Your task to perform on an android device: turn off airplane mode Image 0: 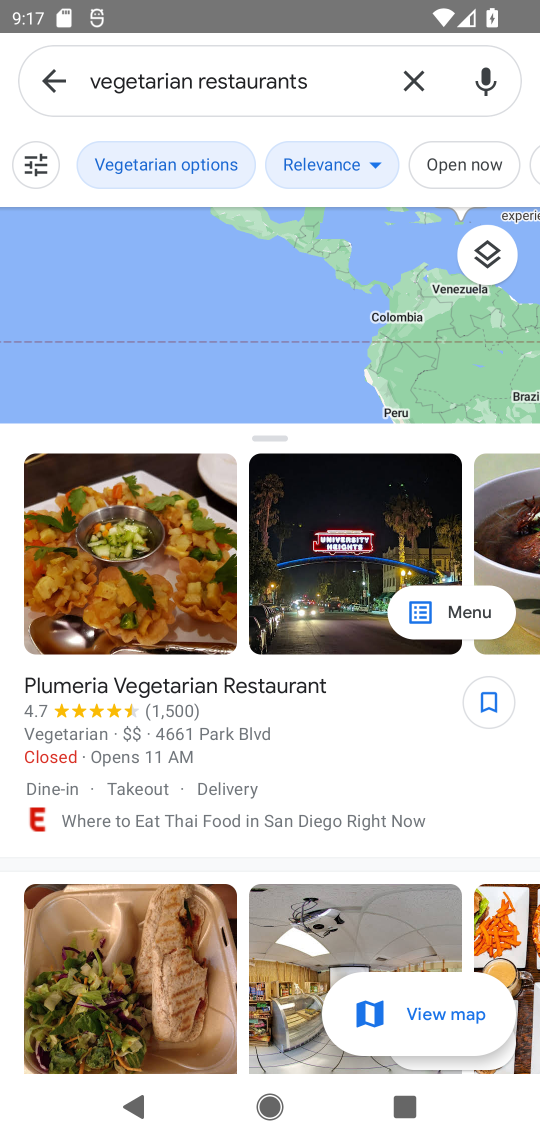
Step 0: press home button
Your task to perform on an android device: turn off airplane mode Image 1: 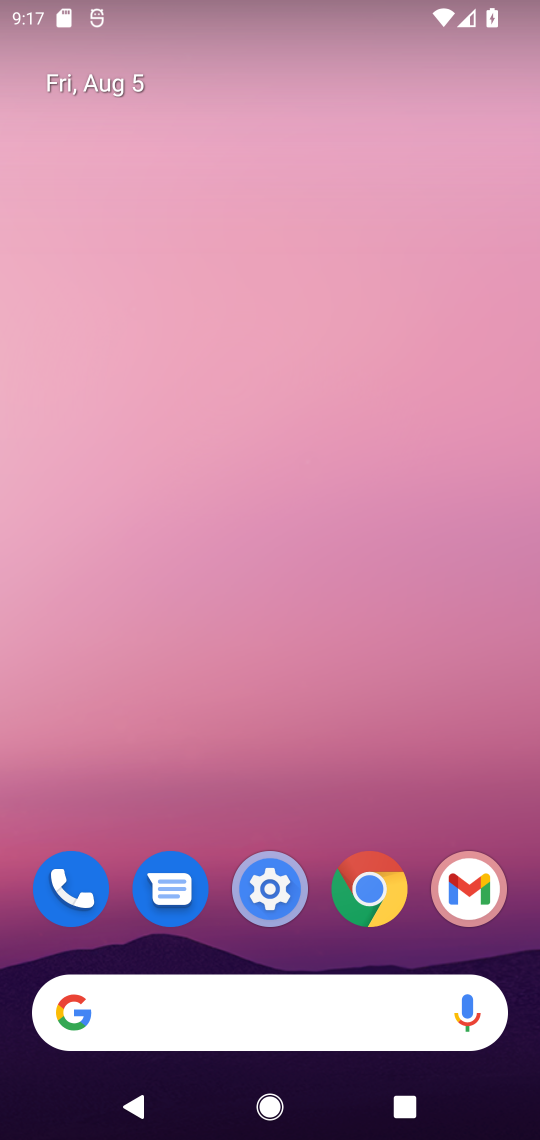
Step 1: drag from (354, 744) to (243, 241)
Your task to perform on an android device: turn off airplane mode Image 2: 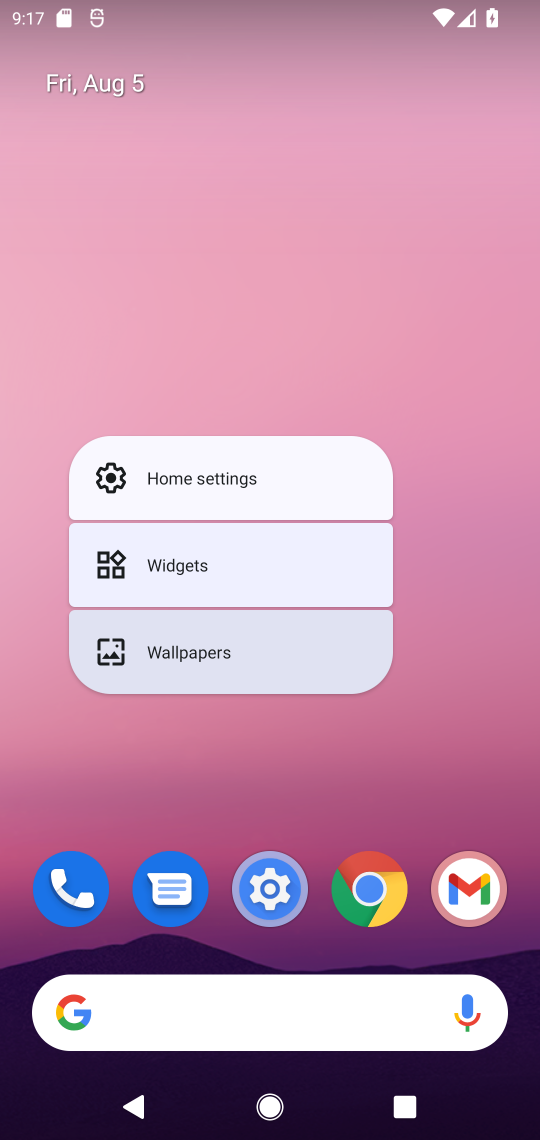
Step 2: click (319, 781)
Your task to perform on an android device: turn off airplane mode Image 3: 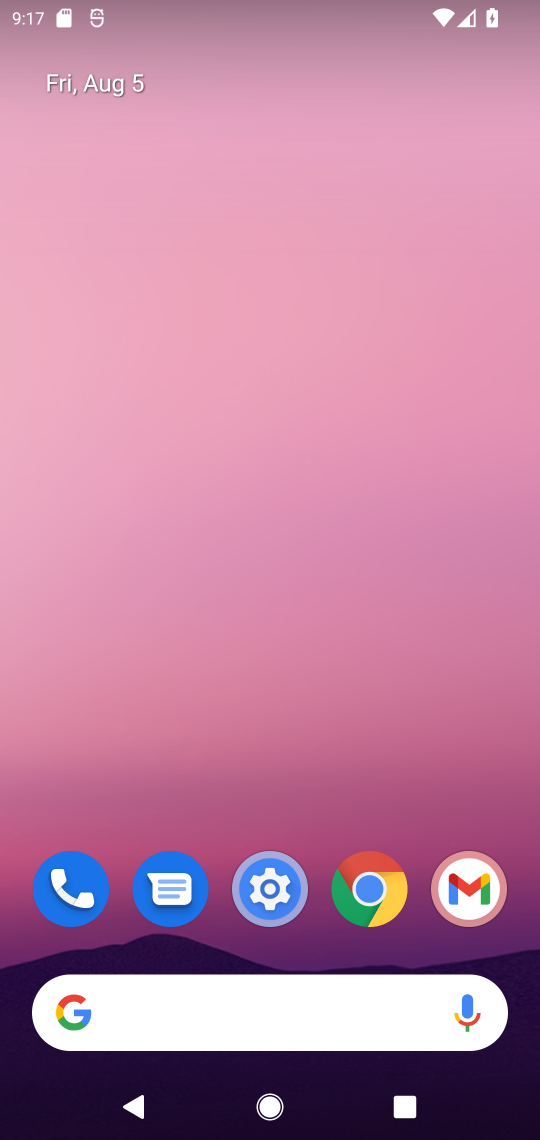
Step 3: drag from (291, 944) to (279, 375)
Your task to perform on an android device: turn off airplane mode Image 4: 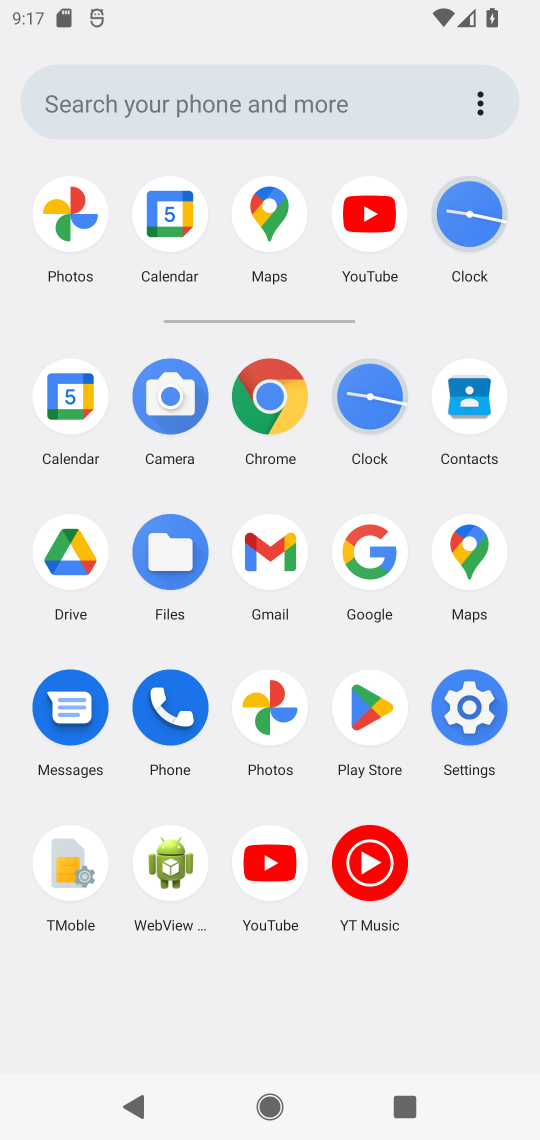
Step 4: click (478, 692)
Your task to perform on an android device: turn off airplane mode Image 5: 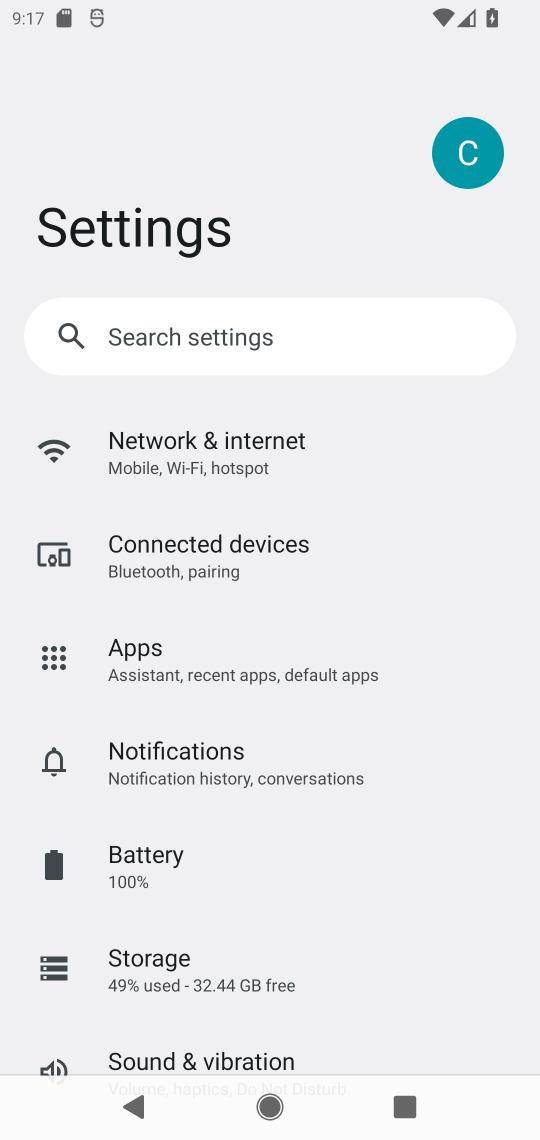
Step 5: click (284, 435)
Your task to perform on an android device: turn off airplane mode Image 6: 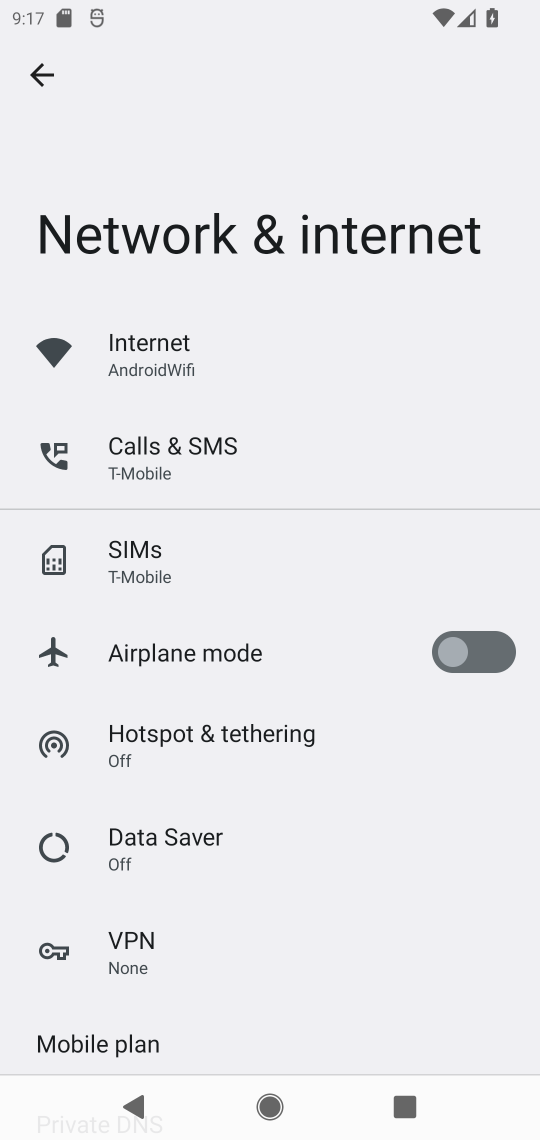
Step 6: click (224, 654)
Your task to perform on an android device: turn off airplane mode Image 7: 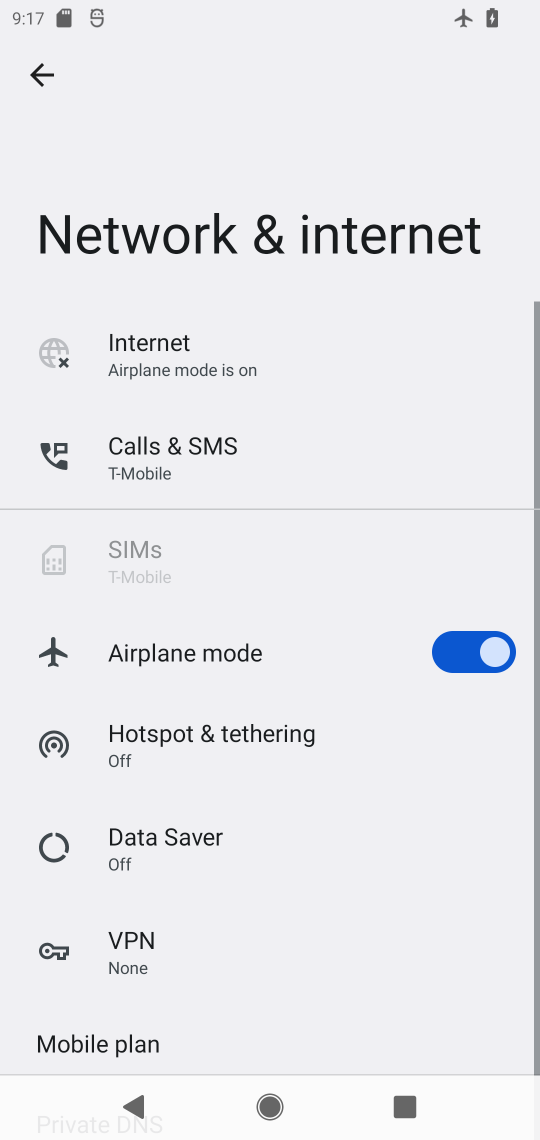
Step 7: click (232, 663)
Your task to perform on an android device: turn off airplane mode Image 8: 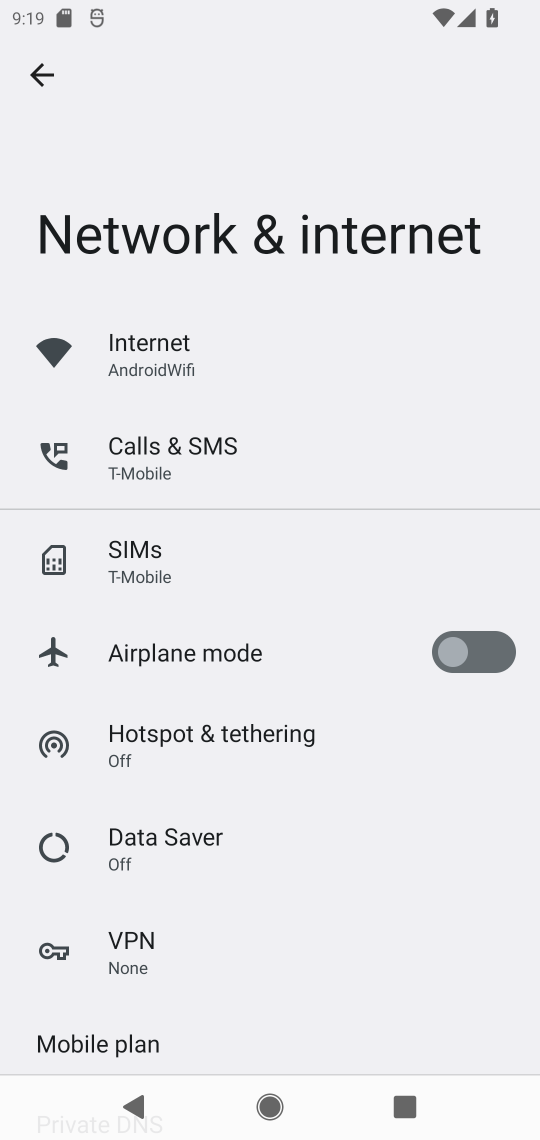
Step 8: task complete